Your task to perform on an android device: Clear the shopping cart on target. Add logitech g pro to the cart on target Image 0: 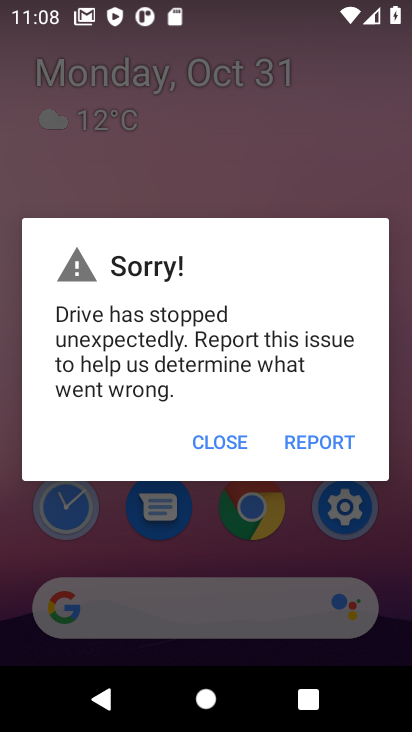
Step 0: press home button
Your task to perform on an android device: Clear the shopping cart on target. Add logitech g pro to the cart on target Image 1: 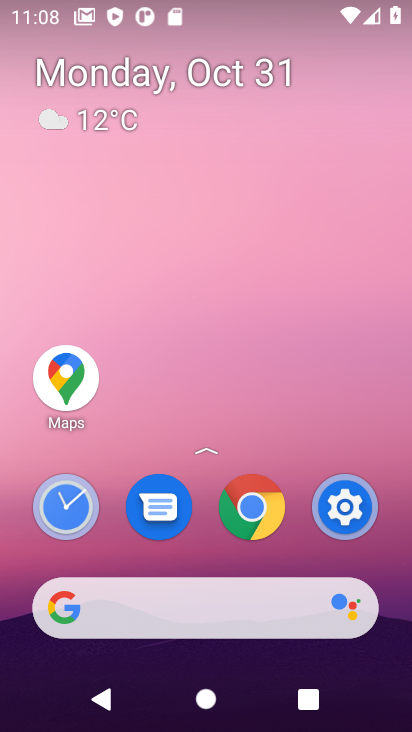
Step 1: drag from (202, 564) to (189, 32)
Your task to perform on an android device: Clear the shopping cart on target. Add logitech g pro to the cart on target Image 2: 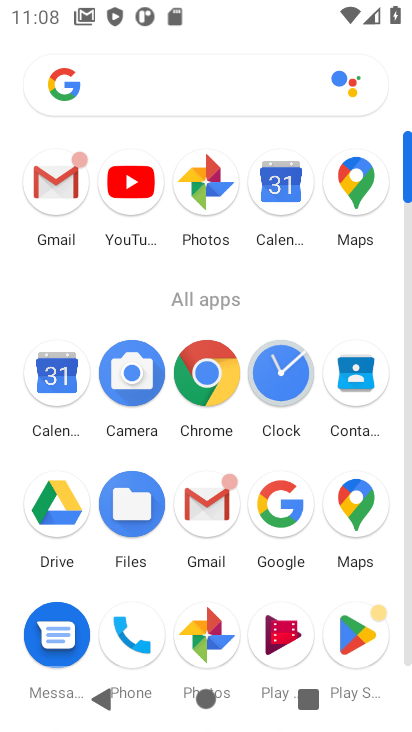
Step 2: click (203, 367)
Your task to perform on an android device: Clear the shopping cart on target. Add logitech g pro to the cart on target Image 3: 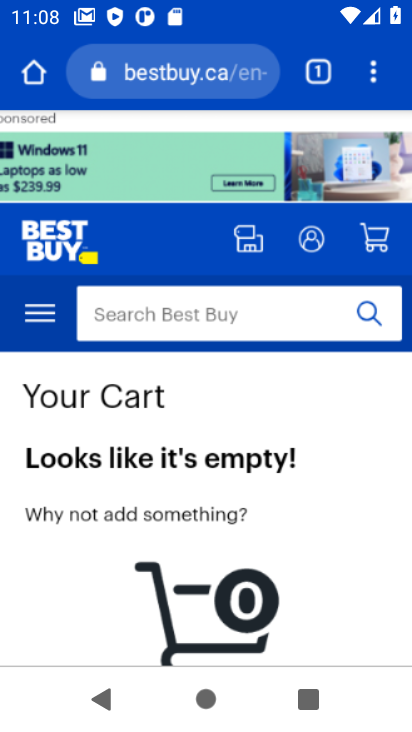
Step 3: click (187, 64)
Your task to perform on an android device: Clear the shopping cart on target. Add logitech g pro to the cart on target Image 4: 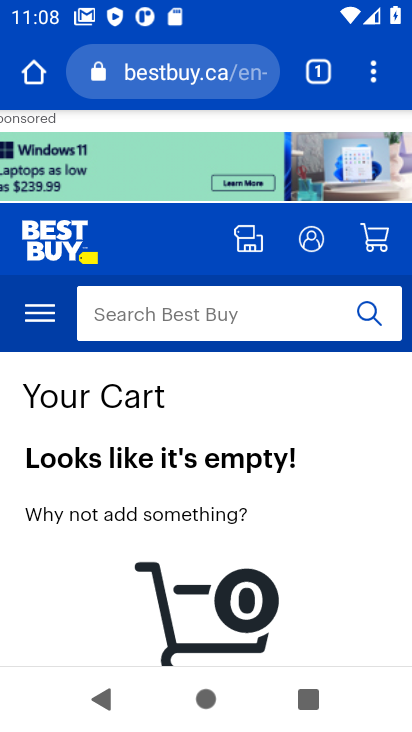
Step 4: click (381, 239)
Your task to perform on an android device: Clear the shopping cart on target. Add logitech g pro to the cart on target Image 5: 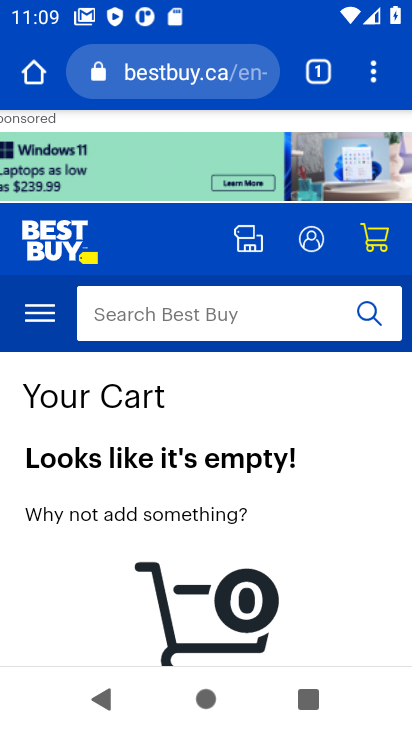
Step 5: click (372, 243)
Your task to perform on an android device: Clear the shopping cart on target. Add logitech g pro to the cart on target Image 6: 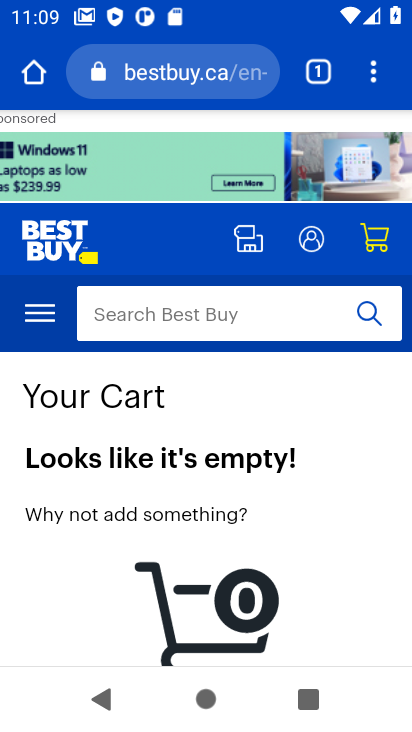
Step 6: drag from (245, 398) to (269, 194)
Your task to perform on an android device: Clear the shopping cart on target. Add logitech g pro to the cart on target Image 7: 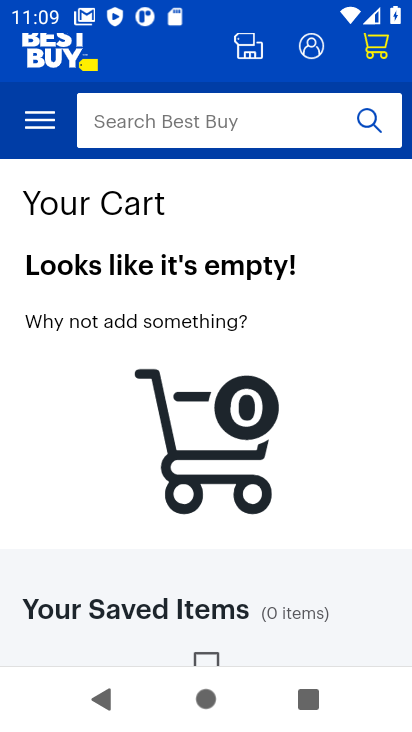
Step 7: drag from (243, 326) to (224, 489)
Your task to perform on an android device: Clear the shopping cart on target. Add logitech g pro to the cart on target Image 8: 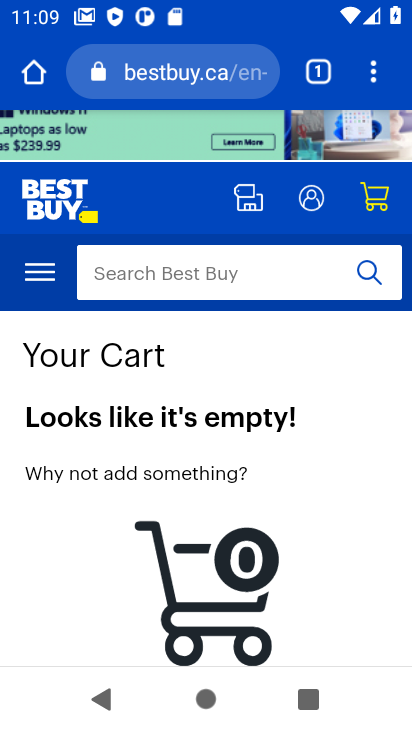
Step 8: click (222, 75)
Your task to perform on an android device: Clear the shopping cart on target. Add logitech g pro to the cart on target Image 9: 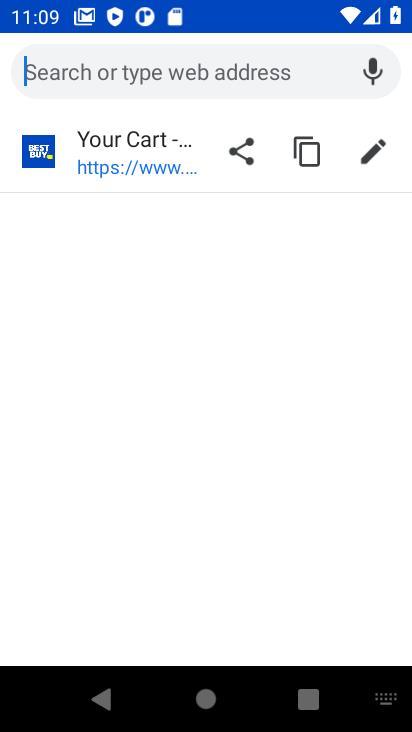
Step 9: type "target.com"
Your task to perform on an android device: Clear the shopping cart on target. Add logitech g pro to the cart on target Image 10: 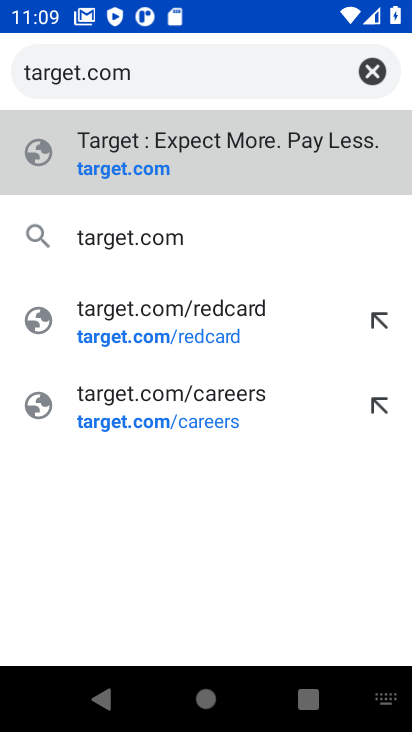
Step 10: press enter
Your task to perform on an android device: Clear the shopping cart on target. Add logitech g pro to the cart on target Image 11: 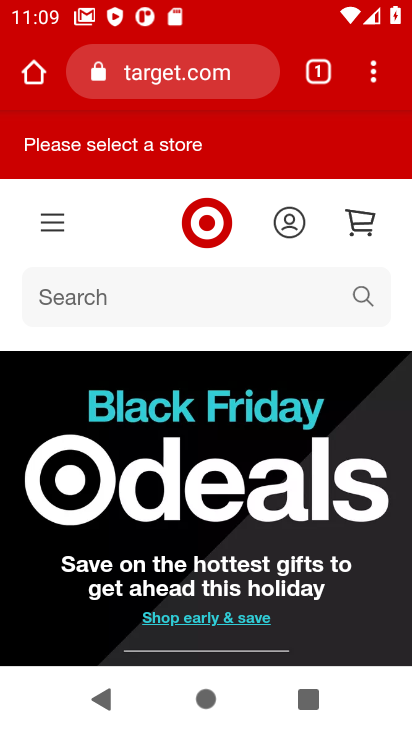
Step 11: click (272, 308)
Your task to perform on an android device: Clear the shopping cart on target. Add logitech g pro to the cart on target Image 12: 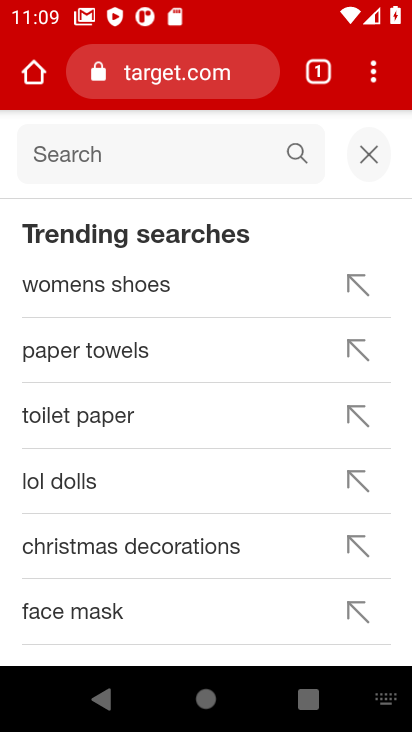
Step 12: click (378, 150)
Your task to perform on an android device: Clear the shopping cart on target. Add logitech g pro to the cart on target Image 13: 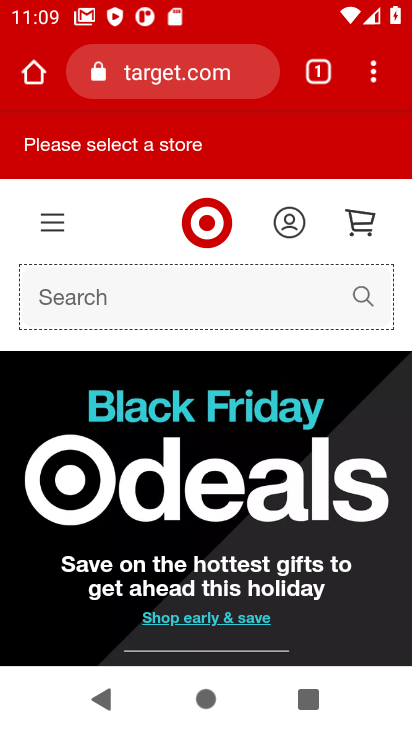
Step 13: click (351, 223)
Your task to perform on an android device: Clear the shopping cart on target. Add logitech g pro to the cart on target Image 14: 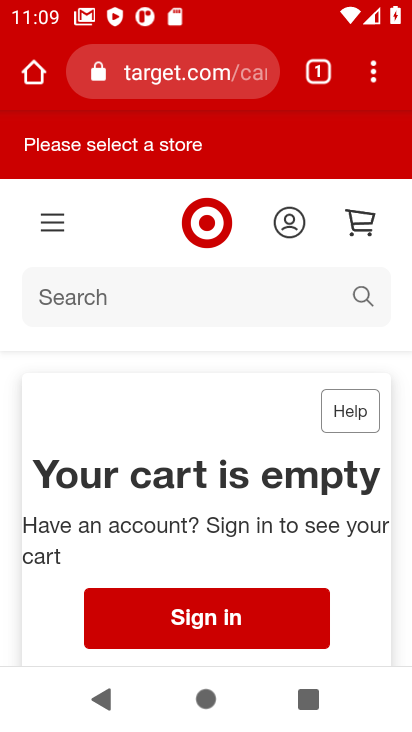
Step 14: click (220, 305)
Your task to perform on an android device: Clear the shopping cart on target. Add logitech g pro to the cart on target Image 15: 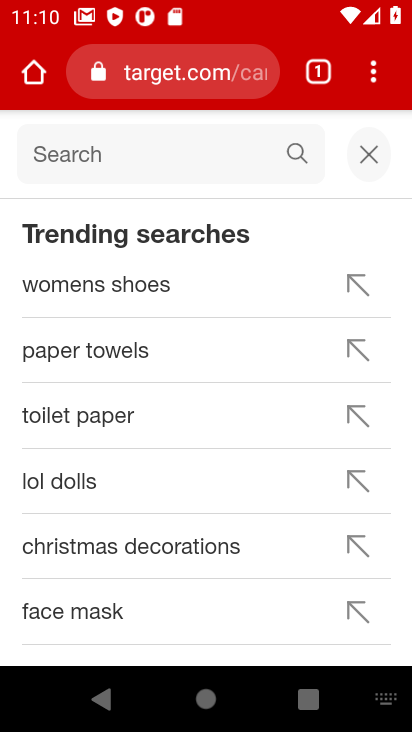
Step 15: type "logitech g pro"
Your task to perform on an android device: Clear the shopping cart on target. Add logitech g pro to the cart on target Image 16: 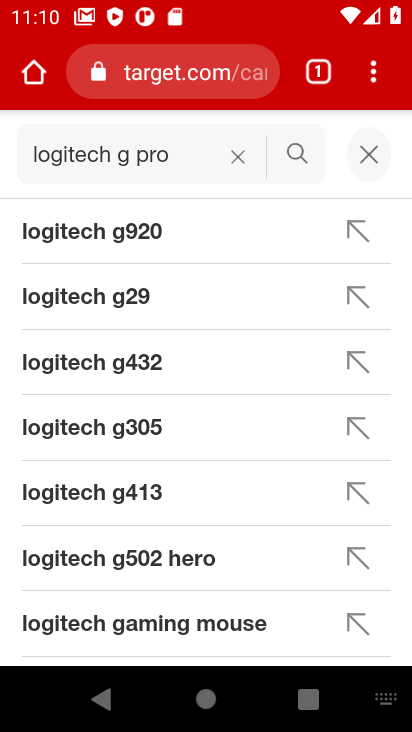
Step 16: press enter
Your task to perform on an android device: Clear the shopping cart on target. Add logitech g pro to the cart on target Image 17: 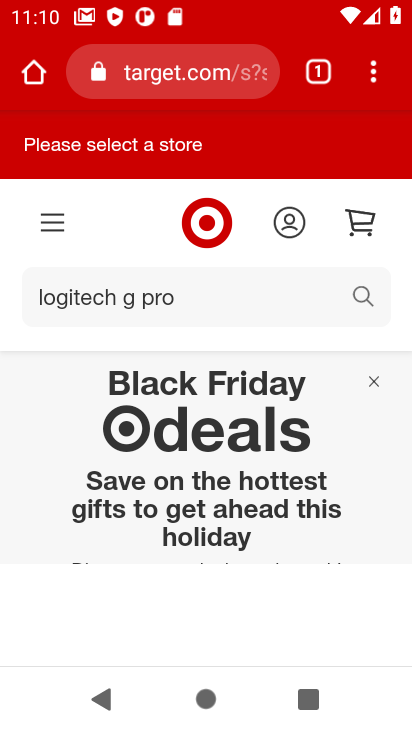
Step 17: task complete